Your task to perform on an android device: Open settings Image 0: 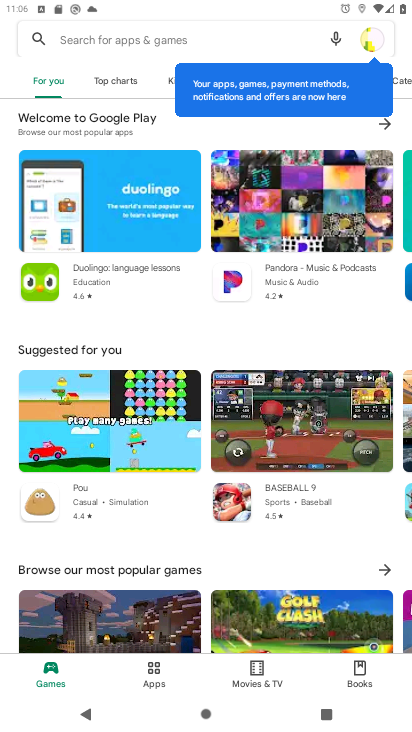
Step 0: press home button
Your task to perform on an android device: Open settings Image 1: 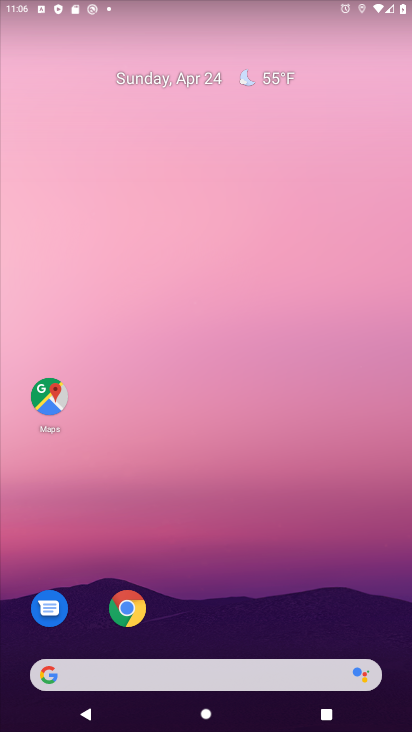
Step 1: drag from (369, 628) to (318, 86)
Your task to perform on an android device: Open settings Image 2: 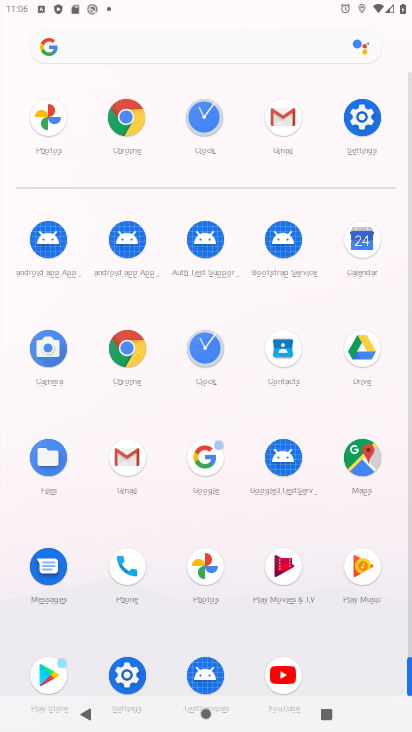
Step 2: click (125, 673)
Your task to perform on an android device: Open settings Image 3: 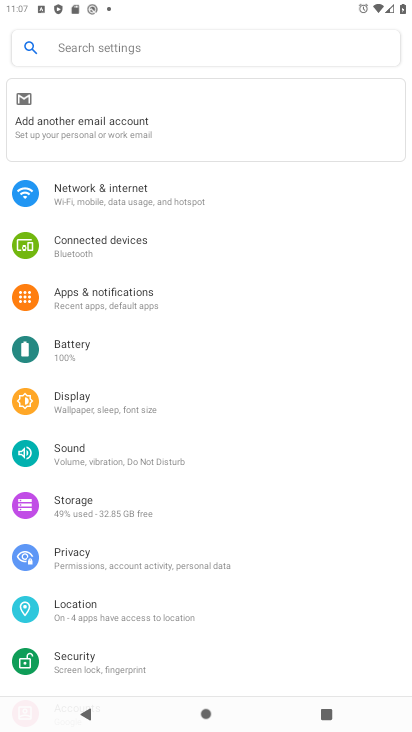
Step 3: task complete